Your task to perform on an android device: see sites visited before in the chrome app Image 0: 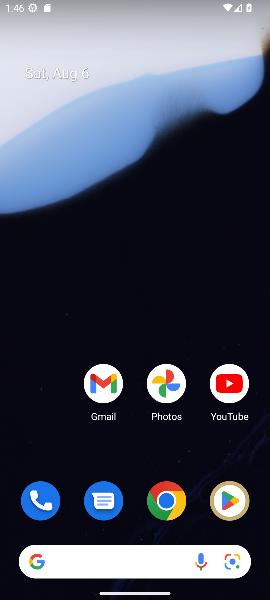
Step 0: press home button
Your task to perform on an android device: see sites visited before in the chrome app Image 1: 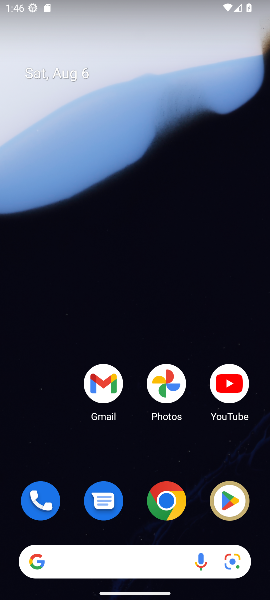
Step 1: click (167, 504)
Your task to perform on an android device: see sites visited before in the chrome app Image 2: 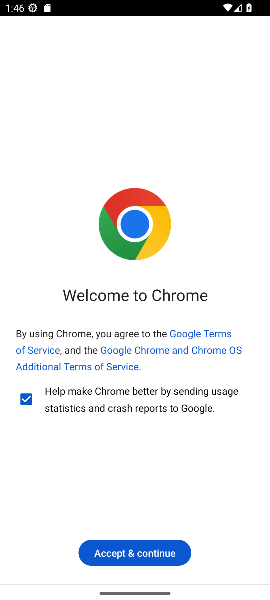
Step 2: click (144, 551)
Your task to perform on an android device: see sites visited before in the chrome app Image 3: 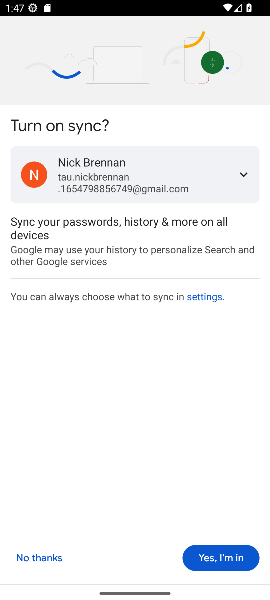
Step 3: click (220, 562)
Your task to perform on an android device: see sites visited before in the chrome app Image 4: 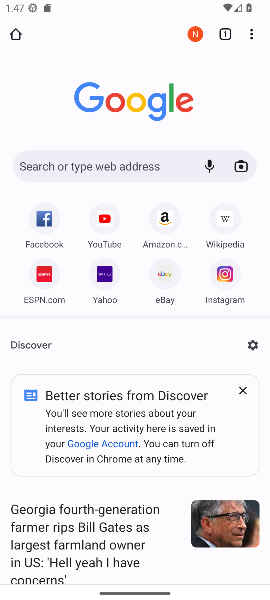
Step 4: task complete